Your task to perform on an android device: Open the map Image 0: 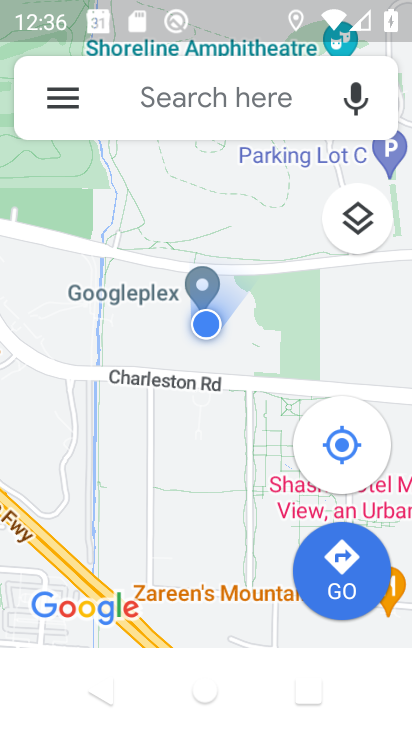
Step 0: task complete